Your task to perform on an android device: turn off sleep mode Image 0: 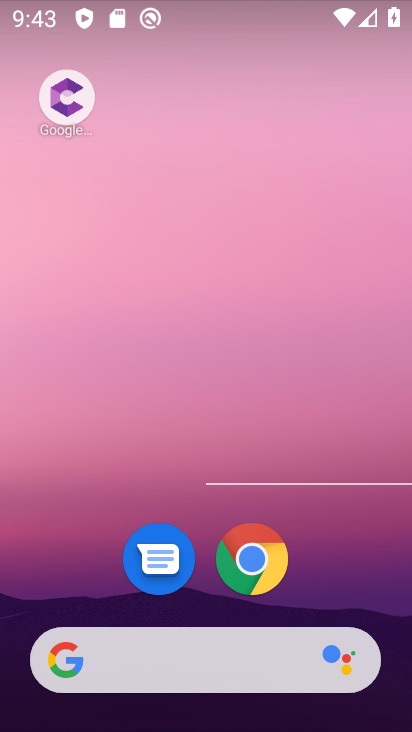
Step 0: drag from (207, 600) to (232, 214)
Your task to perform on an android device: turn off sleep mode Image 1: 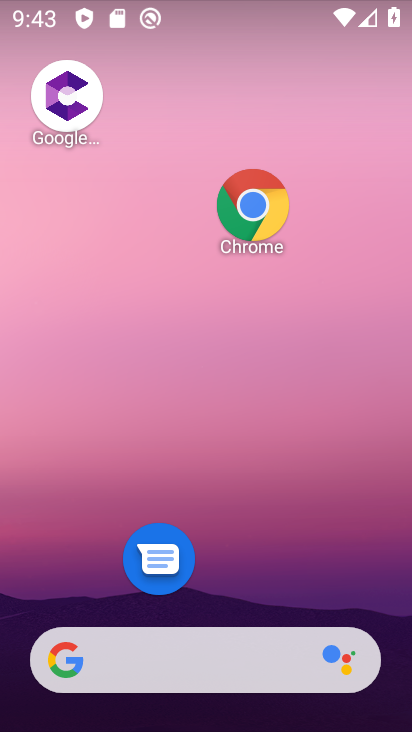
Step 1: drag from (242, 613) to (210, 239)
Your task to perform on an android device: turn off sleep mode Image 2: 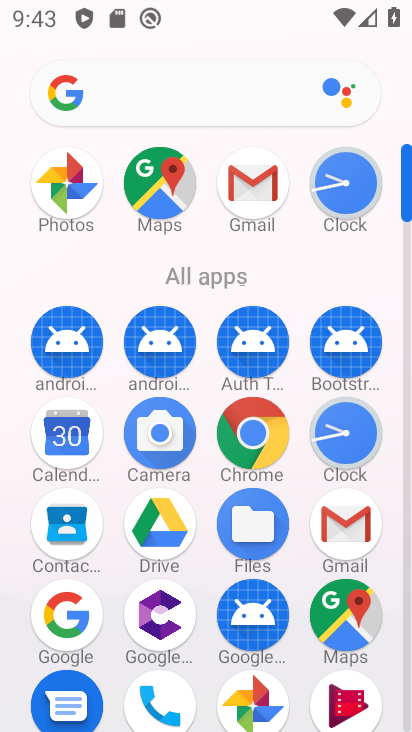
Step 2: drag from (189, 662) to (225, 217)
Your task to perform on an android device: turn off sleep mode Image 3: 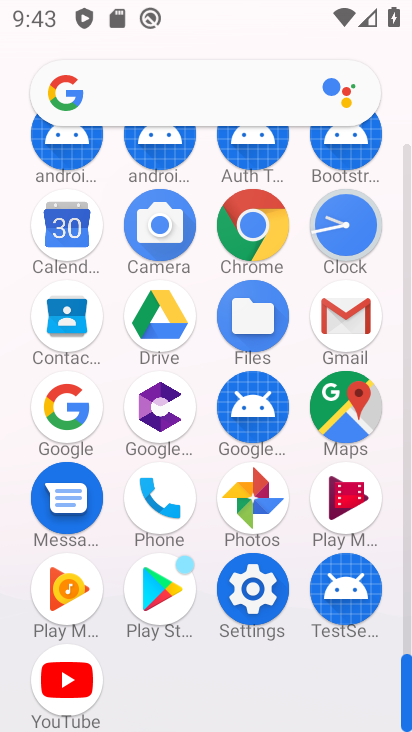
Step 3: click (239, 608)
Your task to perform on an android device: turn off sleep mode Image 4: 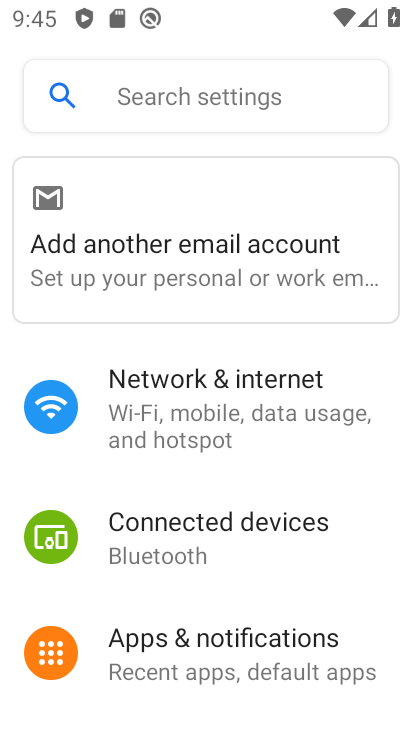
Step 4: task complete